Your task to perform on an android device: change notification settings in the gmail app Image 0: 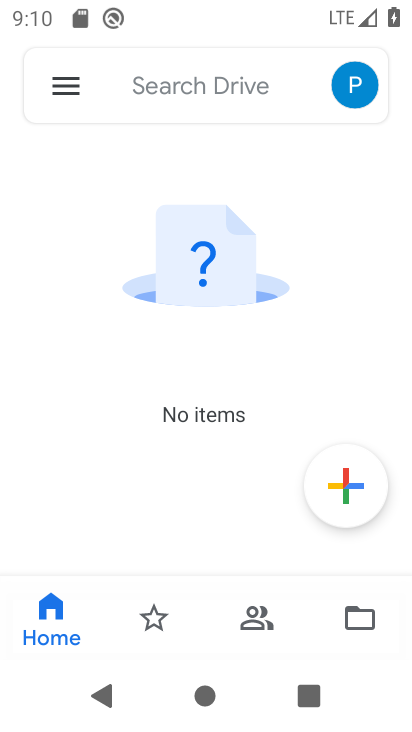
Step 0: press home button
Your task to perform on an android device: change notification settings in the gmail app Image 1: 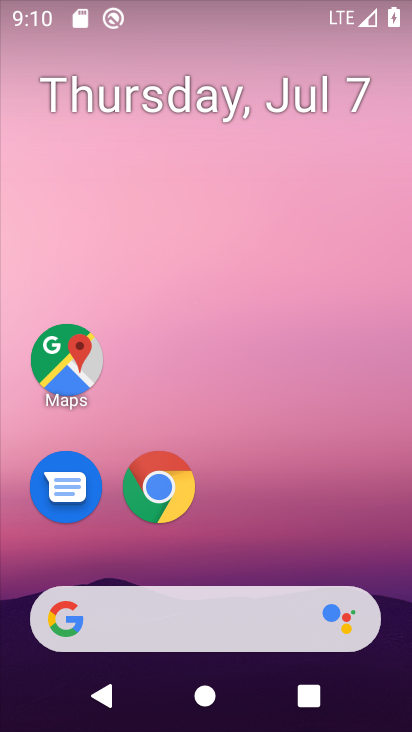
Step 1: drag from (361, 530) to (357, 146)
Your task to perform on an android device: change notification settings in the gmail app Image 2: 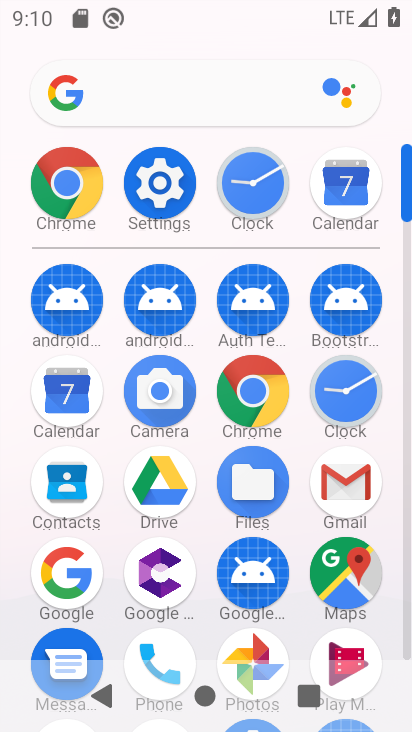
Step 2: click (350, 473)
Your task to perform on an android device: change notification settings in the gmail app Image 3: 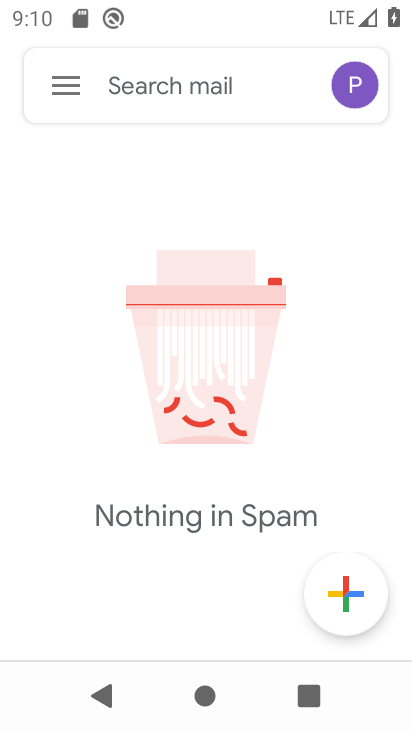
Step 3: click (77, 96)
Your task to perform on an android device: change notification settings in the gmail app Image 4: 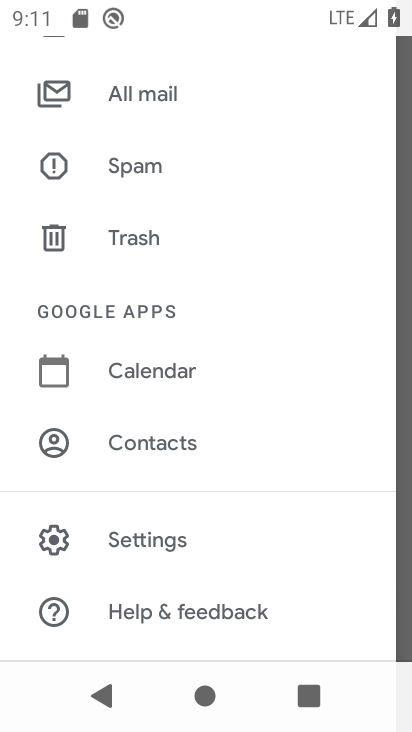
Step 4: click (230, 539)
Your task to perform on an android device: change notification settings in the gmail app Image 5: 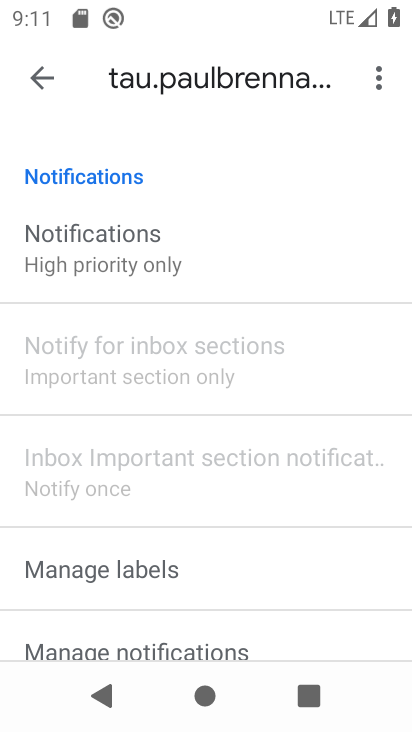
Step 5: drag from (272, 522) to (290, 408)
Your task to perform on an android device: change notification settings in the gmail app Image 6: 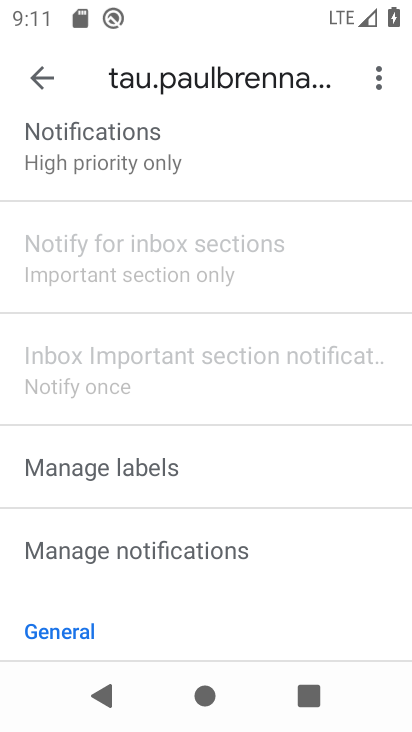
Step 6: drag from (320, 512) to (320, 396)
Your task to perform on an android device: change notification settings in the gmail app Image 7: 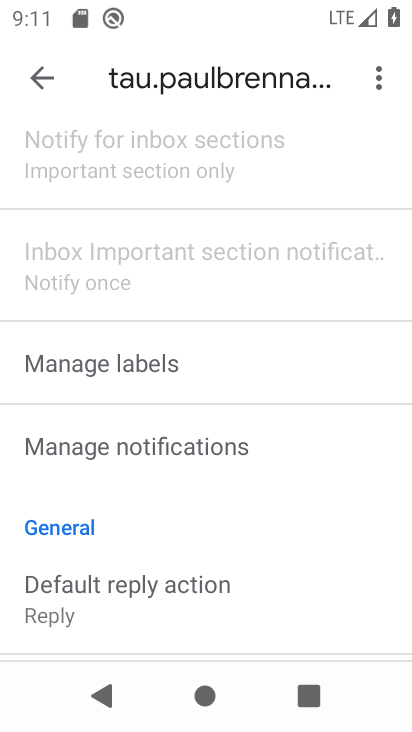
Step 7: drag from (329, 514) to (328, 397)
Your task to perform on an android device: change notification settings in the gmail app Image 8: 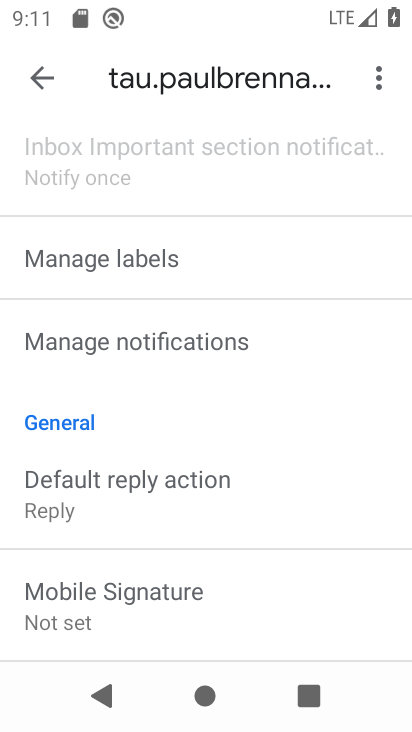
Step 8: drag from (326, 507) to (334, 360)
Your task to perform on an android device: change notification settings in the gmail app Image 9: 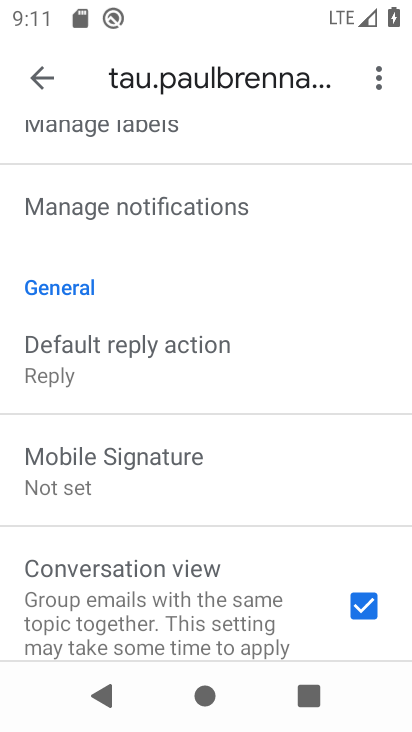
Step 9: drag from (353, 472) to (351, 333)
Your task to perform on an android device: change notification settings in the gmail app Image 10: 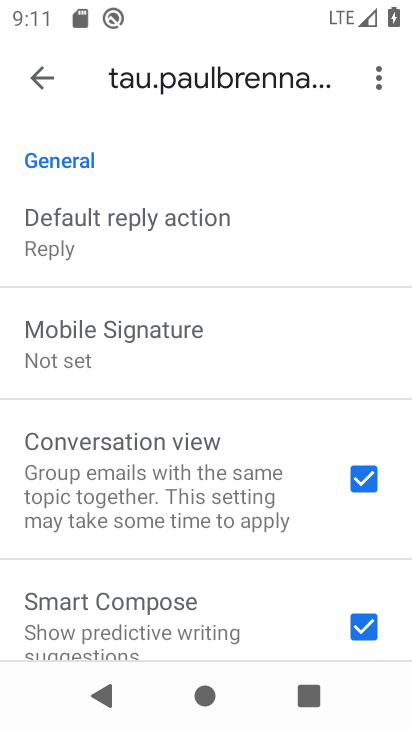
Step 10: drag from (305, 527) to (301, 403)
Your task to perform on an android device: change notification settings in the gmail app Image 11: 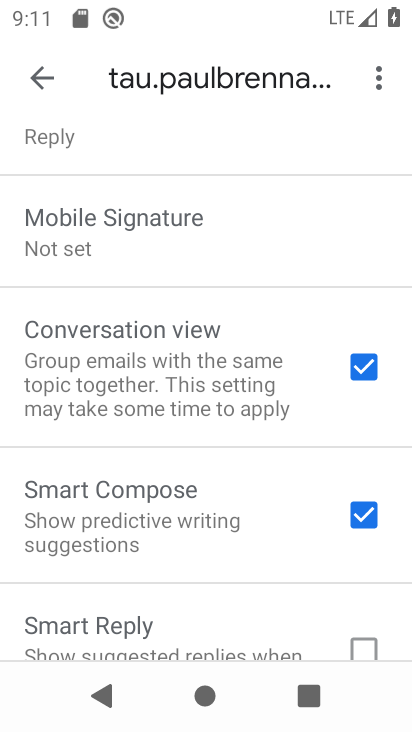
Step 11: drag from (290, 540) to (288, 415)
Your task to perform on an android device: change notification settings in the gmail app Image 12: 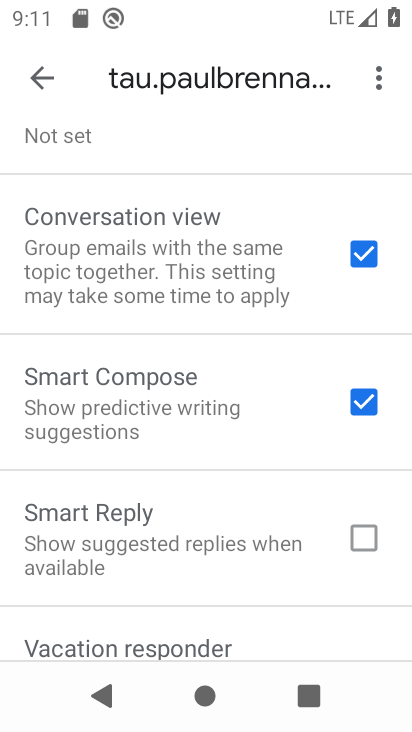
Step 12: drag from (274, 548) to (279, 394)
Your task to perform on an android device: change notification settings in the gmail app Image 13: 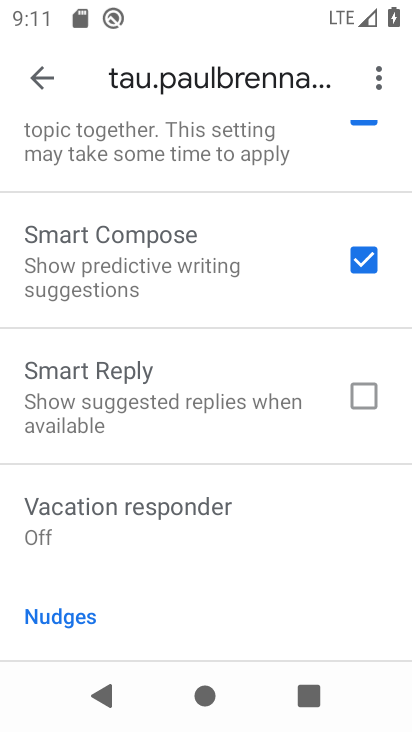
Step 13: drag from (278, 547) to (287, 415)
Your task to perform on an android device: change notification settings in the gmail app Image 14: 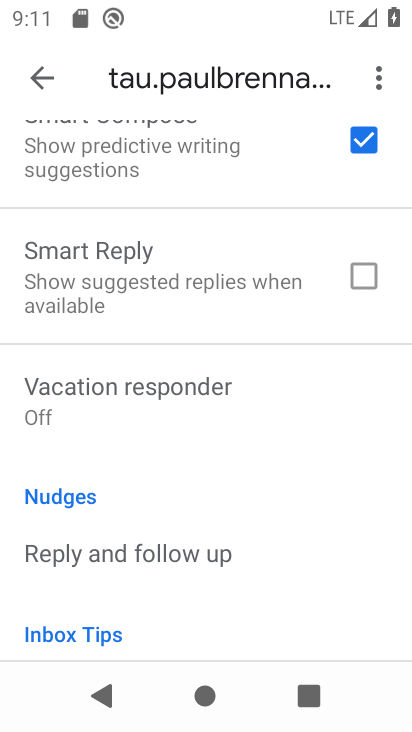
Step 14: drag from (309, 310) to (318, 413)
Your task to perform on an android device: change notification settings in the gmail app Image 15: 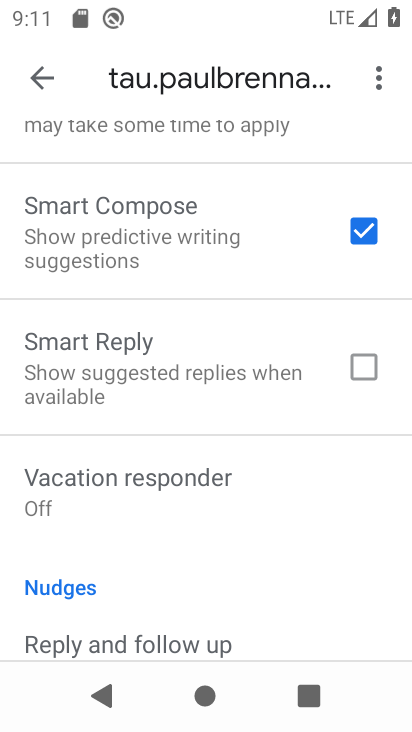
Step 15: drag from (301, 225) to (301, 371)
Your task to perform on an android device: change notification settings in the gmail app Image 16: 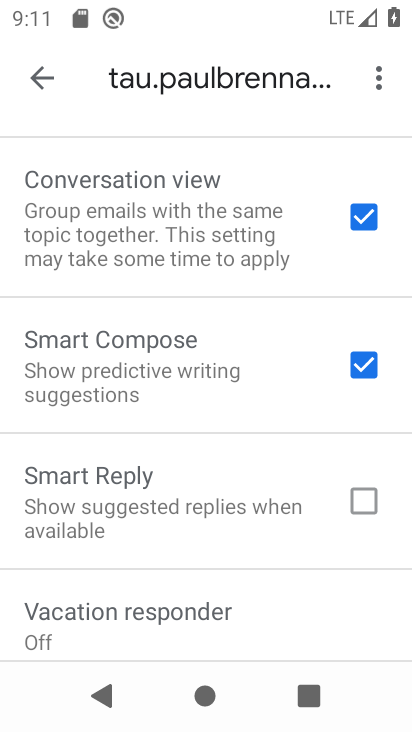
Step 16: drag from (316, 253) to (332, 477)
Your task to perform on an android device: change notification settings in the gmail app Image 17: 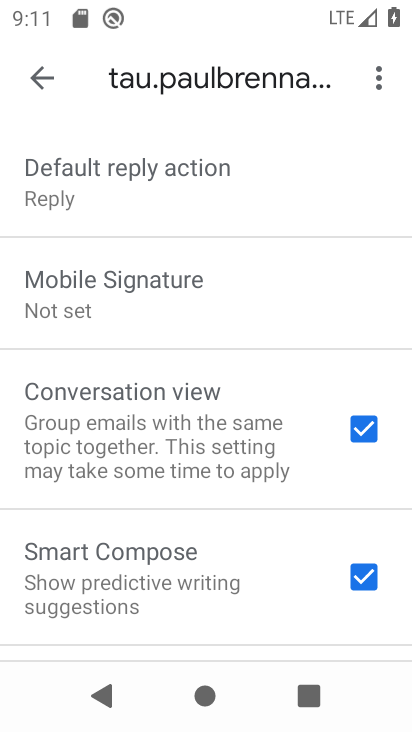
Step 17: drag from (313, 247) to (299, 482)
Your task to perform on an android device: change notification settings in the gmail app Image 18: 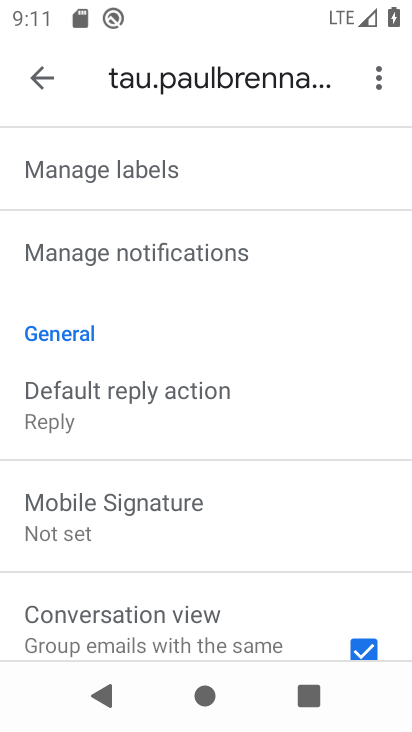
Step 18: drag from (283, 222) to (287, 504)
Your task to perform on an android device: change notification settings in the gmail app Image 19: 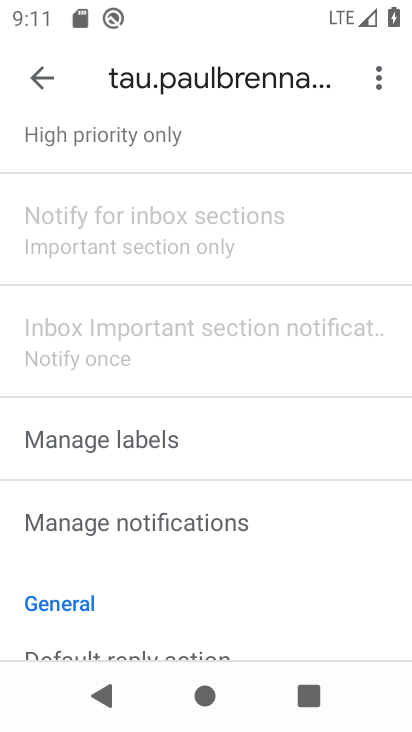
Step 19: drag from (286, 166) to (286, 383)
Your task to perform on an android device: change notification settings in the gmail app Image 20: 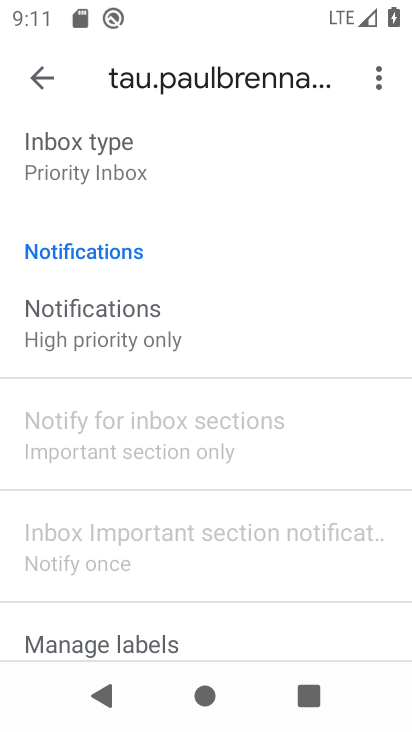
Step 20: click (166, 329)
Your task to perform on an android device: change notification settings in the gmail app Image 21: 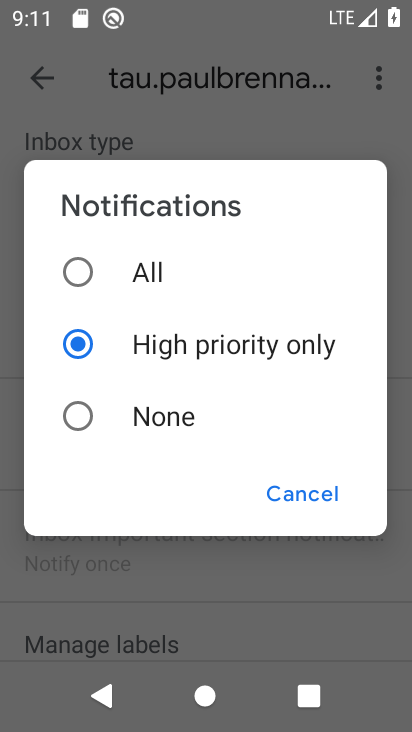
Step 21: click (92, 268)
Your task to perform on an android device: change notification settings in the gmail app Image 22: 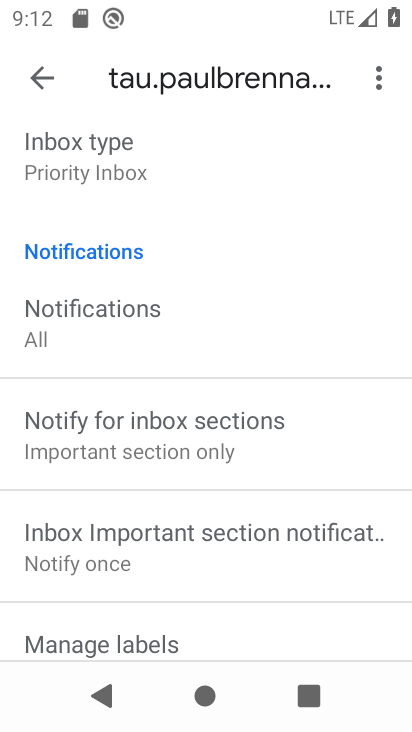
Step 22: task complete